Your task to perform on an android device: Clear the shopping cart on bestbuy.com. Add acer nitro to the cart on bestbuy.com, then select checkout. Image 0: 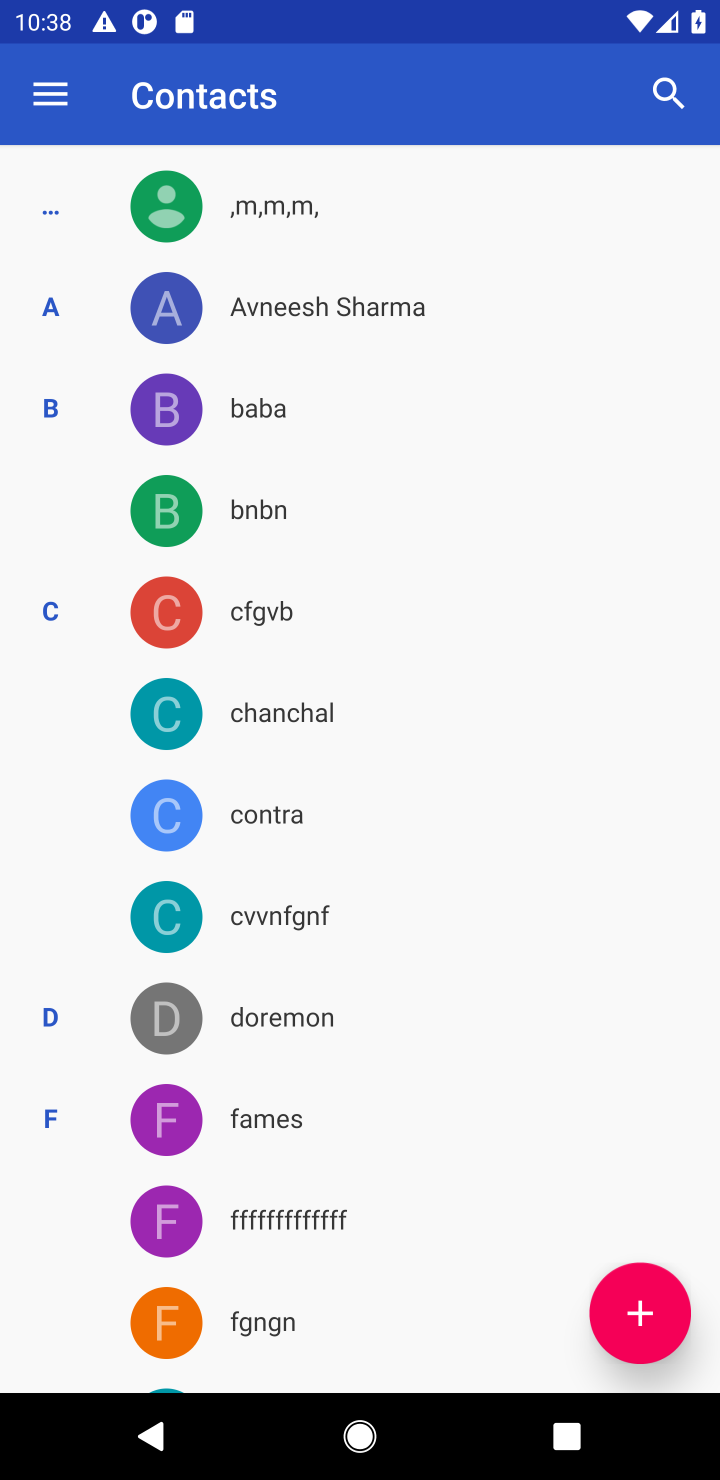
Step 0: press home button
Your task to perform on an android device: Clear the shopping cart on bestbuy.com. Add acer nitro to the cart on bestbuy.com, then select checkout. Image 1: 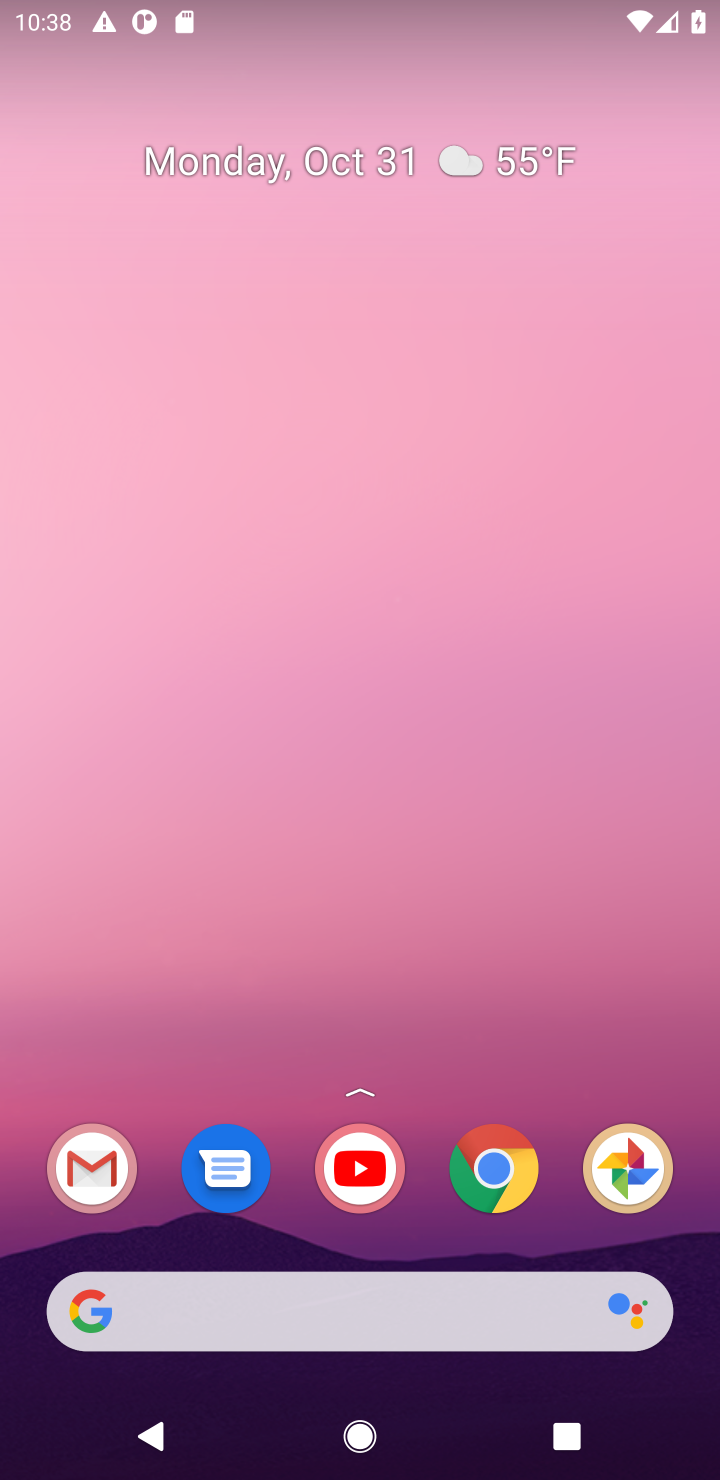
Step 1: click (474, 1160)
Your task to perform on an android device: Clear the shopping cart on bestbuy.com. Add acer nitro to the cart on bestbuy.com, then select checkout. Image 2: 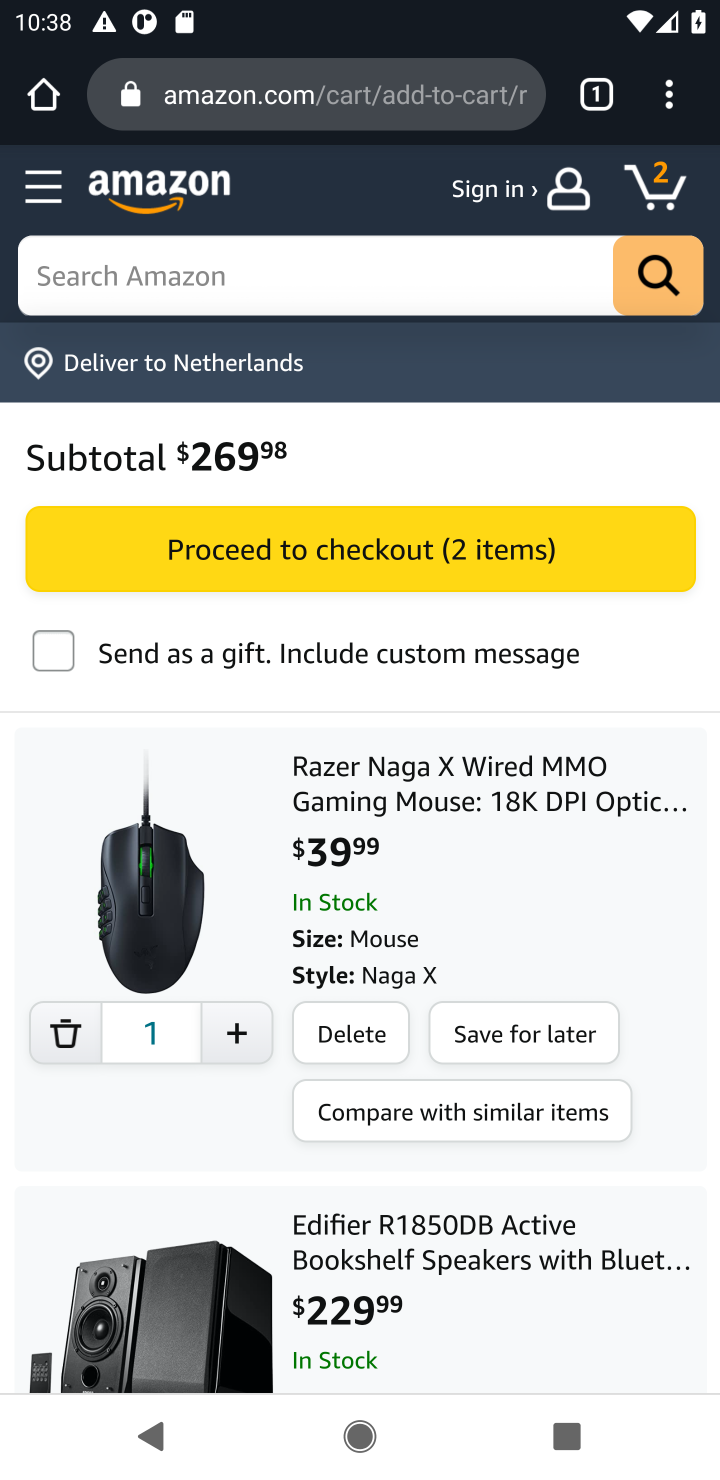
Step 2: click (357, 108)
Your task to perform on an android device: Clear the shopping cart on bestbuy.com. Add acer nitro to the cart on bestbuy.com, then select checkout. Image 3: 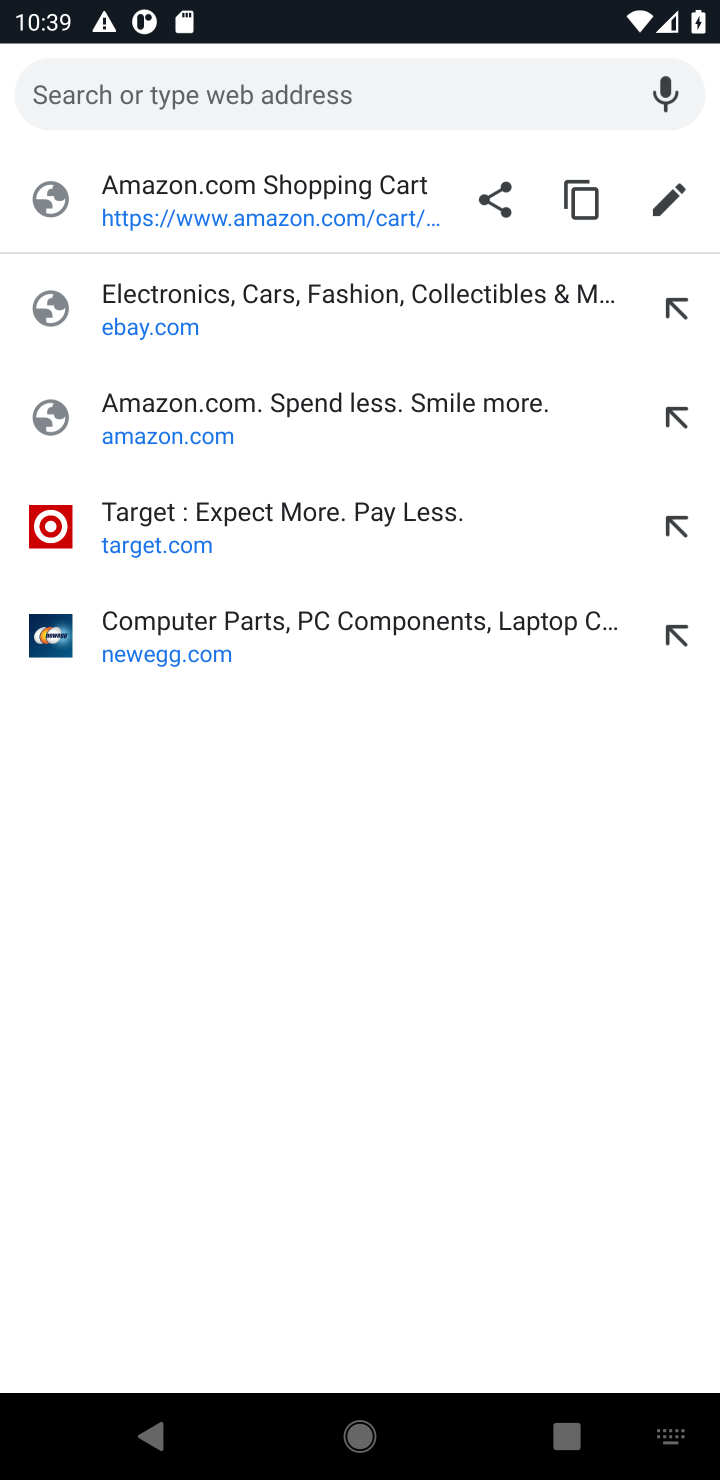
Step 3: type "bestbuy.com"
Your task to perform on an android device: Clear the shopping cart on bestbuy.com. Add acer nitro to the cart on bestbuy.com, then select checkout. Image 4: 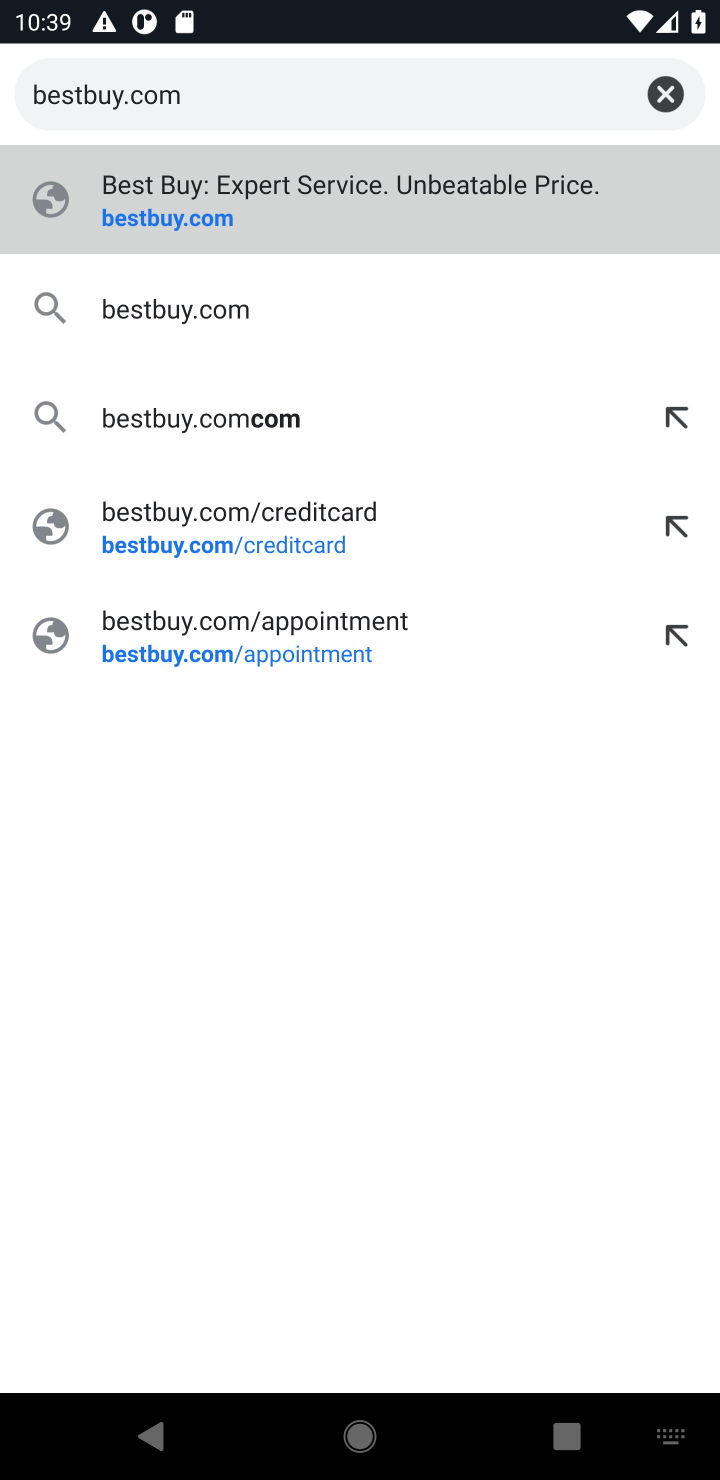
Step 4: press enter
Your task to perform on an android device: Clear the shopping cart on bestbuy.com. Add acer nitro to the cart on bestbuy.com, then select checkout. Image 5: 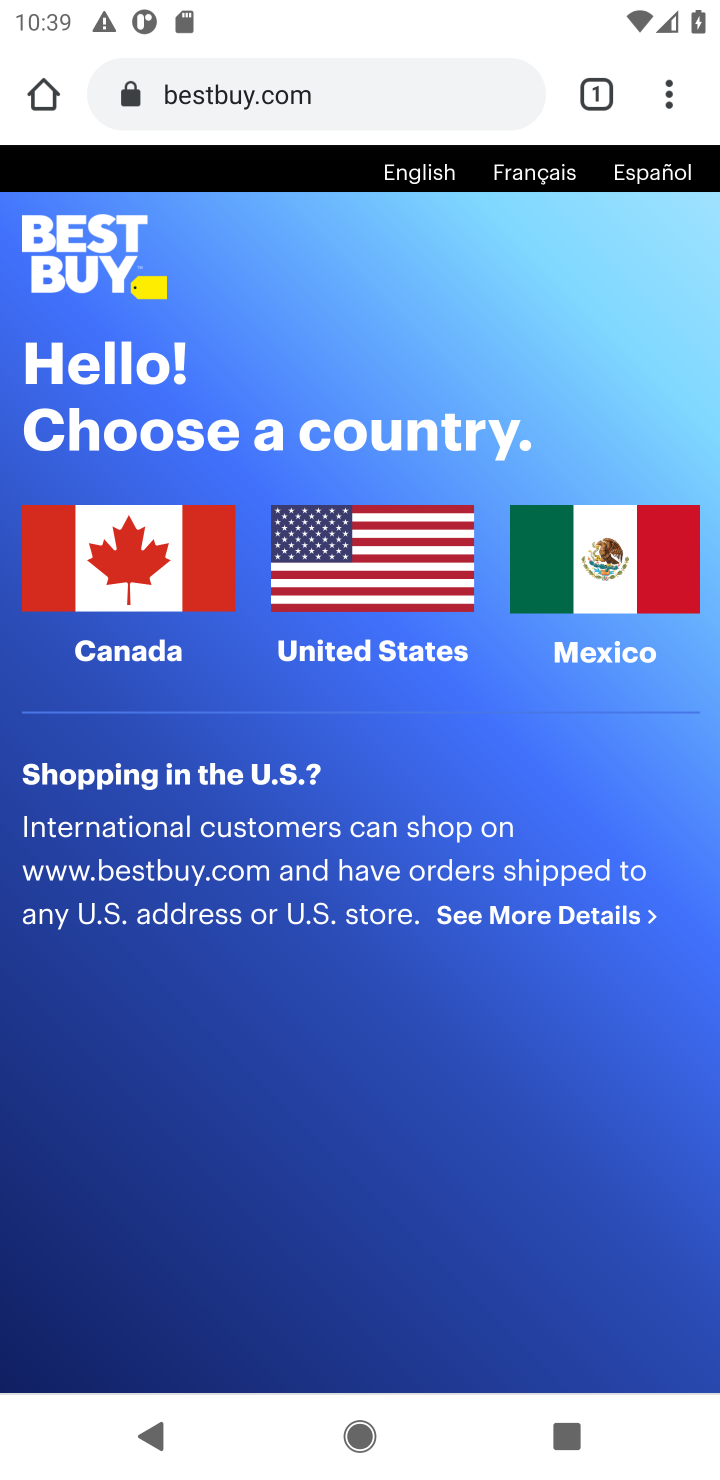
Step 5: click (365, 558)
Your task to perform on an android device: Clear the shopping cart on bestbuy.com. Add acer nitro to the cart on bestbuy.com, then select checkout. Image 6: 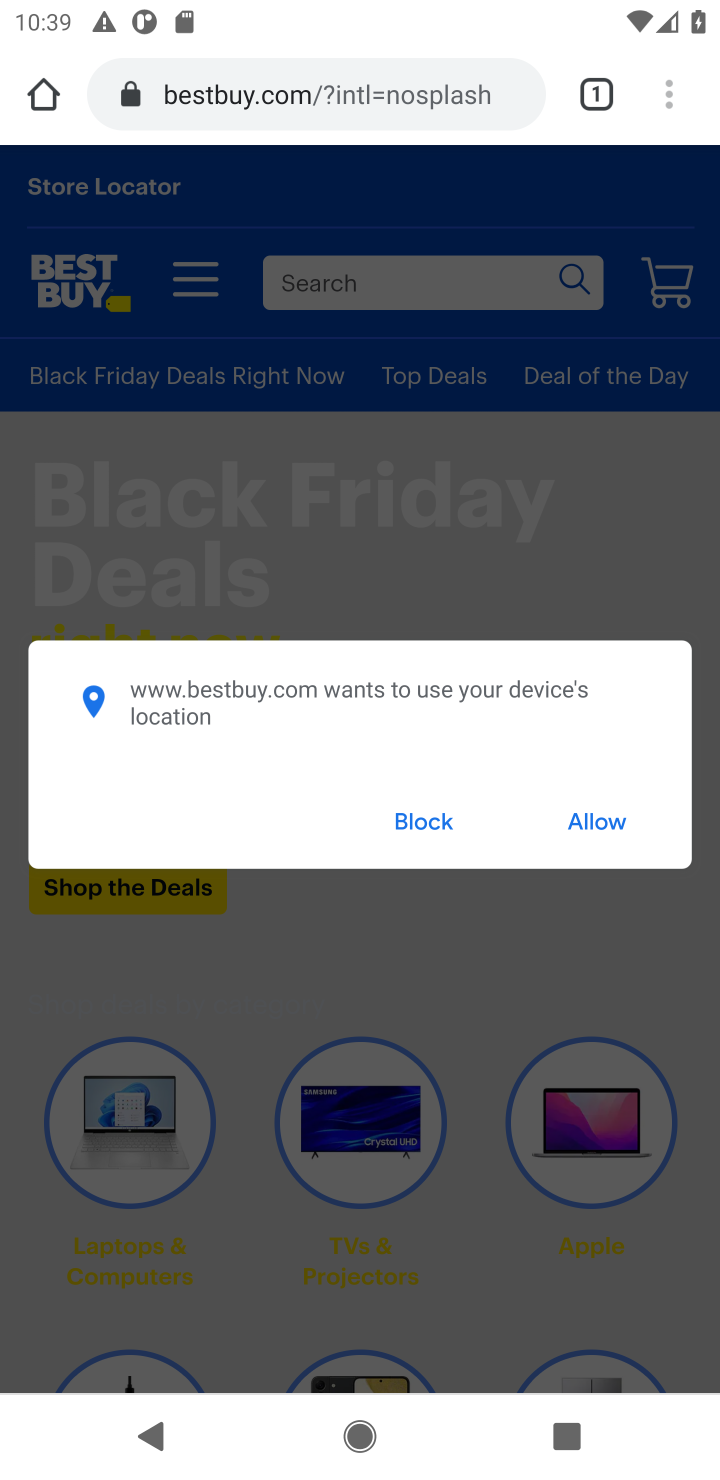
Step 6: click (598, 829)
Your task to perform on an android device: Clear the shopping cart on bestbuy.com. Add acer nitro to the cart on bestbuy.com, then select checkout. Image 7: 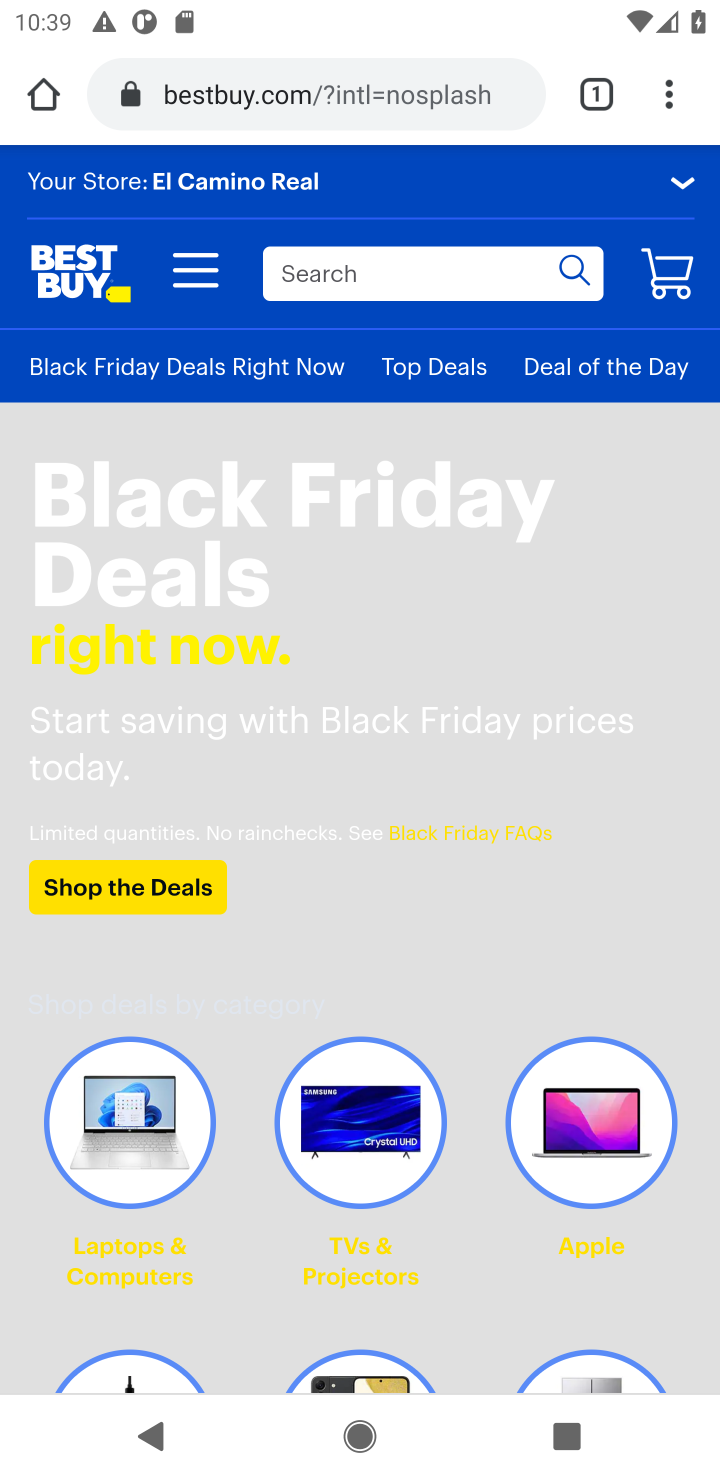
Step 7: click (669, 275)
Your task to perform on an android device: Clear the shopping cart on bestbuy.com. Add acer nitro to the cart on bestbuy.com, then select checkout. Image 8: 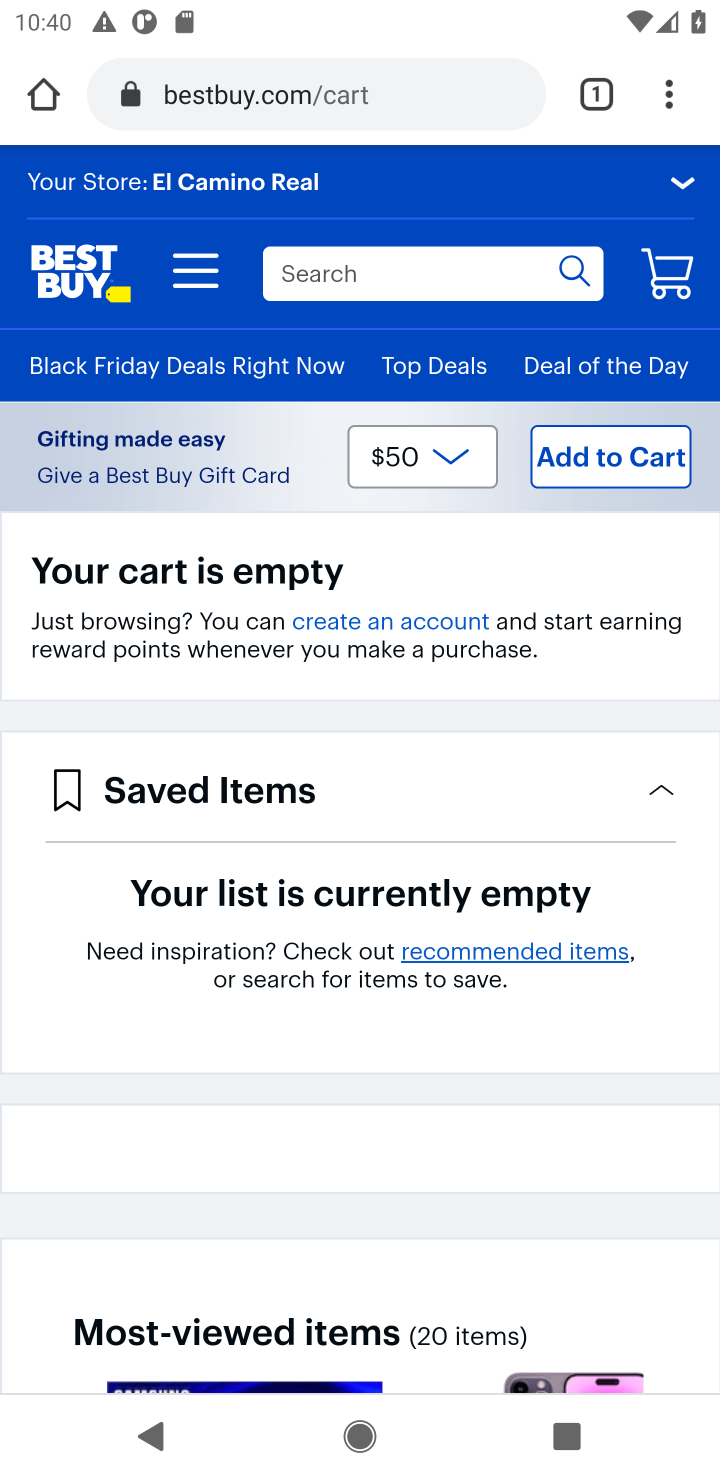
Step 8: drag from (472, 1133) to (381, 1002)
Your task to perform on an android device: Clear the shopping cart on bestbuy.com. Add acer nitro to the cart on bestbuy.com, then select checkout. Image 9: 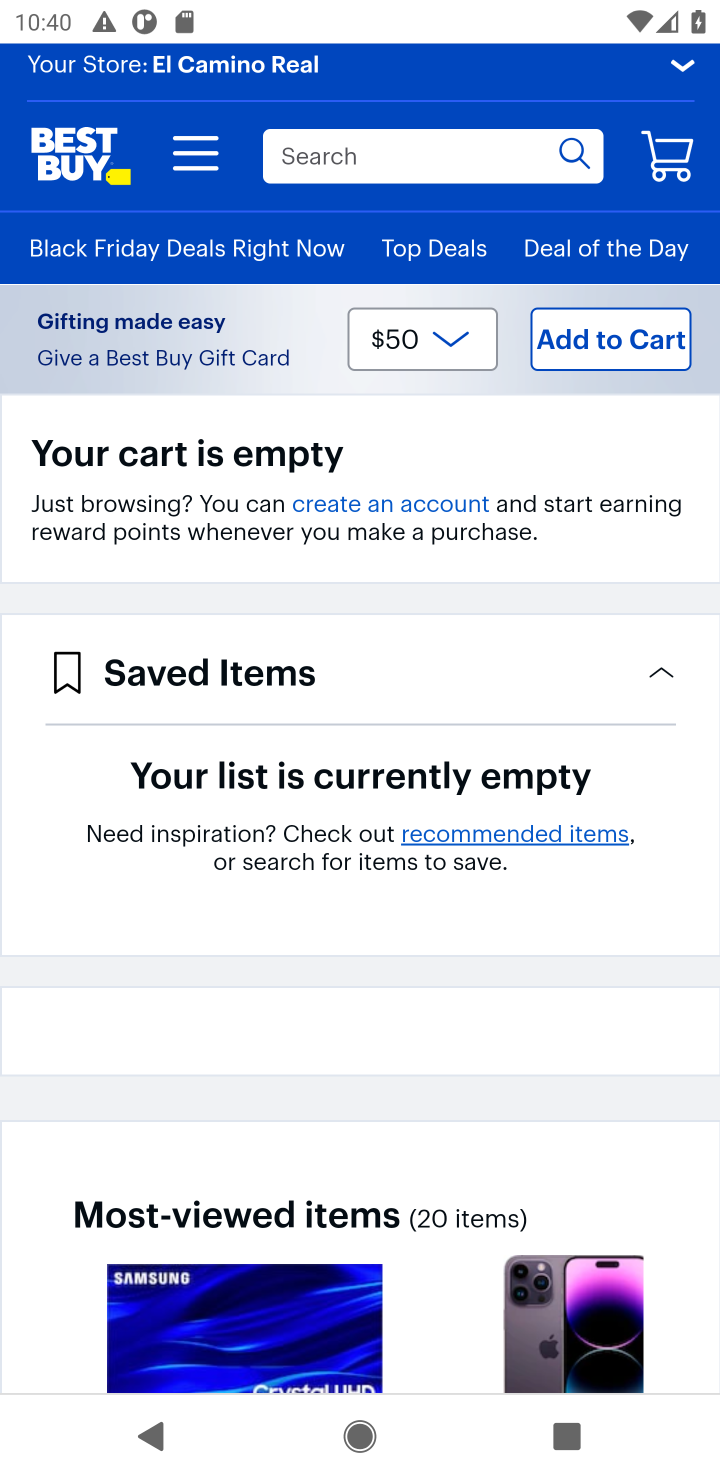
Step 9: click (496, 153)
Your task to perform on an android device: Clear the shopping cart on bestbuy.com. Add acer nitro to the cart on bestbuy.com, then select checkout. Image 10: 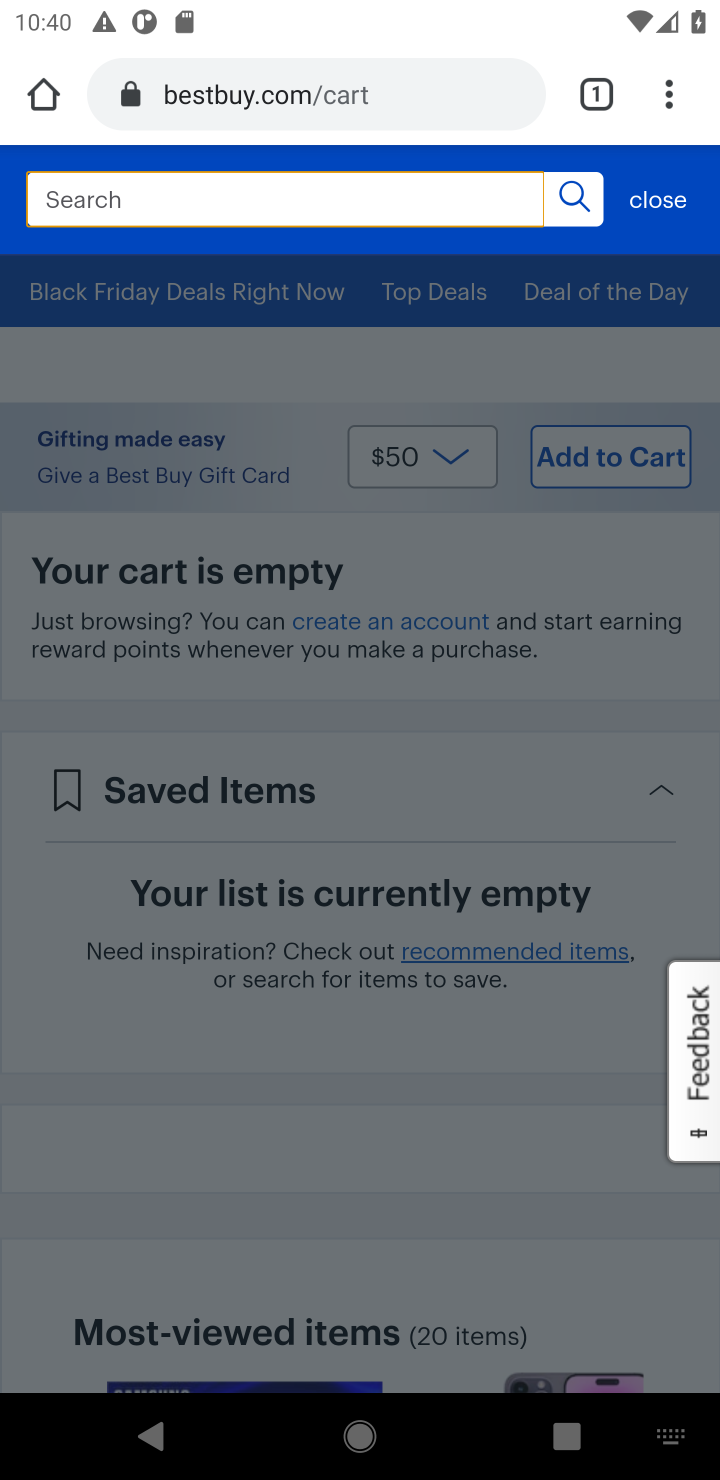
Step 10: type "acer nitro"
Your task to perform on an android device: Clear the shopping cart on bestbuy.com. Add acer nitro to the cart on bestbuy.com, then select checkout. Image 11: 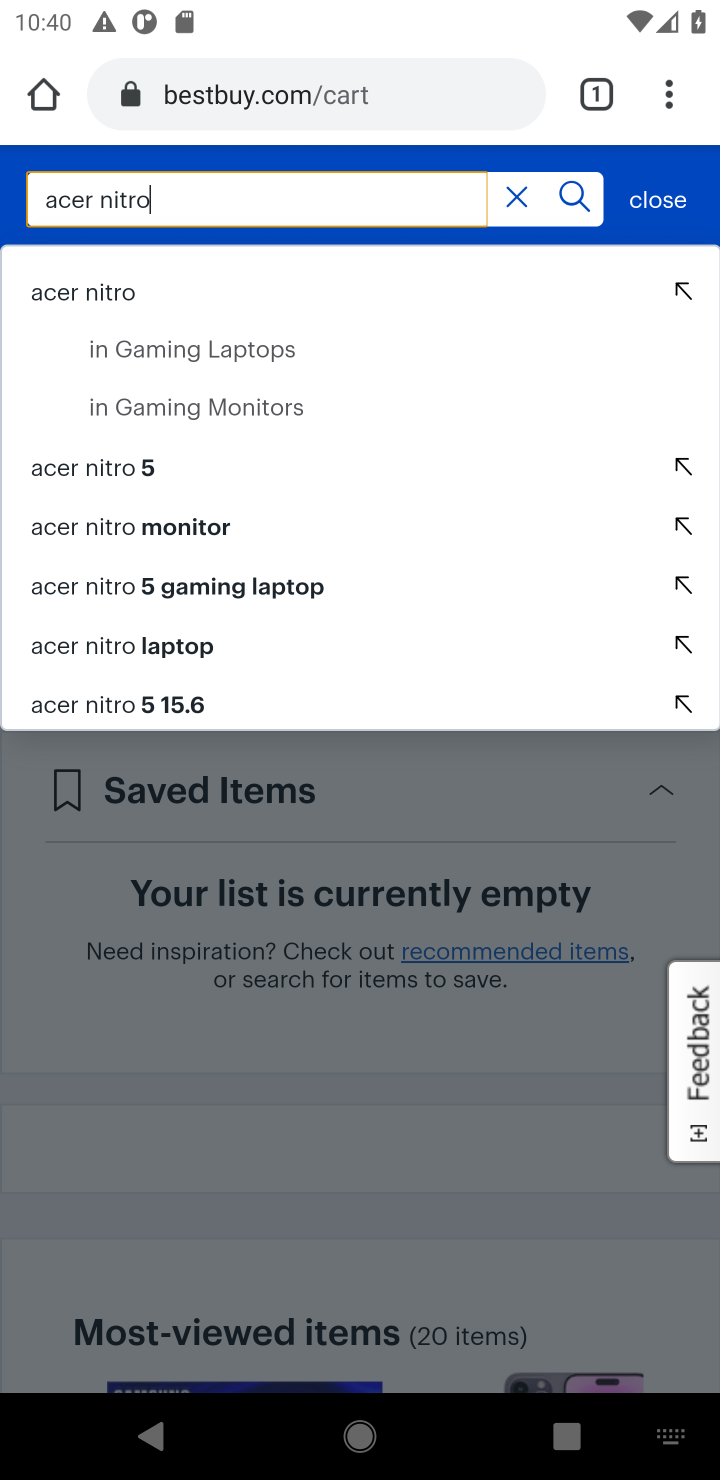
Step 11: press enter
Your task to perform on an android device: Clear the shopping cart on bestbuy.com. Add acer nitro to the cart on bestbuy.com, then select checkout. Image 12: 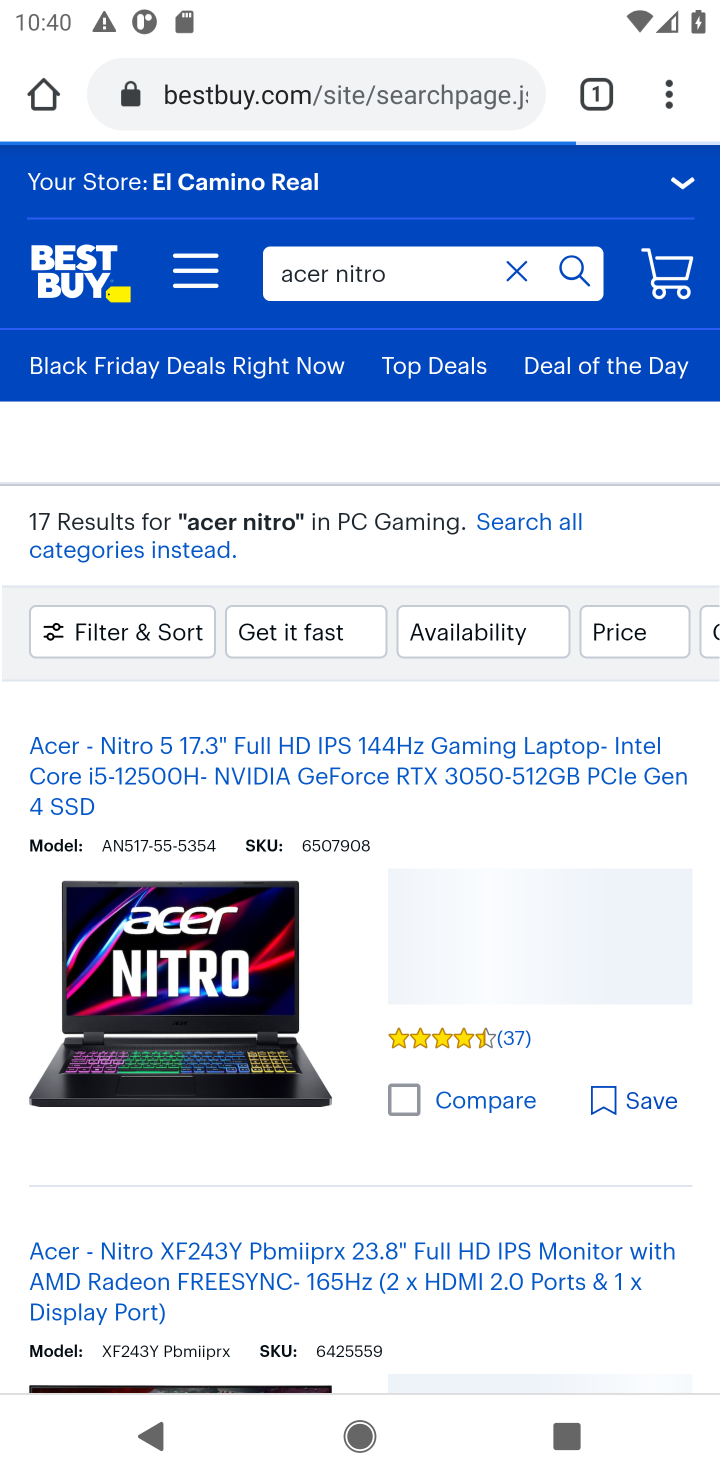
Step 12: click (274, 969)
Your task to perform on an android device: Clear the shopping cart on bestbuy.com. Add acer nitro to the cart on bestbuy.com, then select checkout. Image 13: 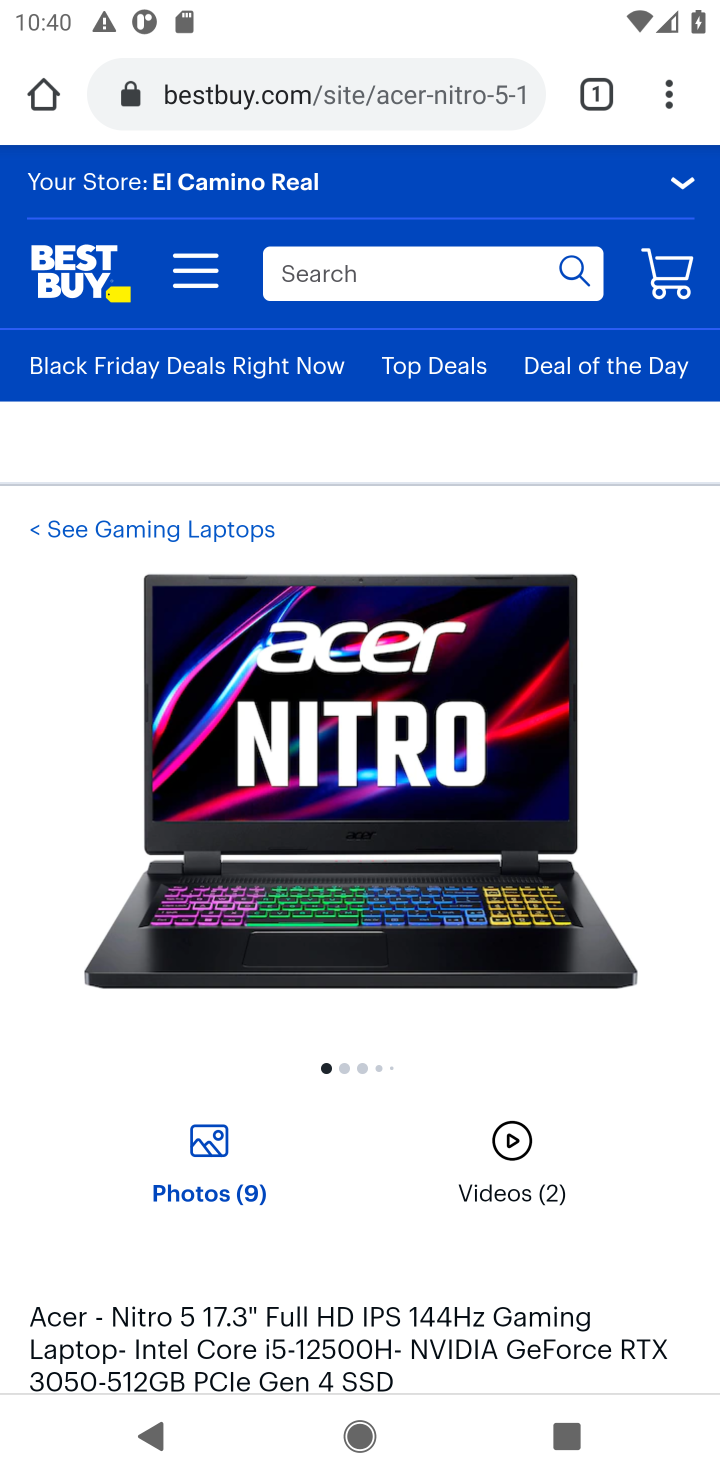
Step 13: drag from (355, 1249) to (398, 67)
Your task to perform on an android device: Clear the shopping cart on bestbuy.com. Add acer nitro to the cart on bestbuy.com, then select checkout. Image 14: 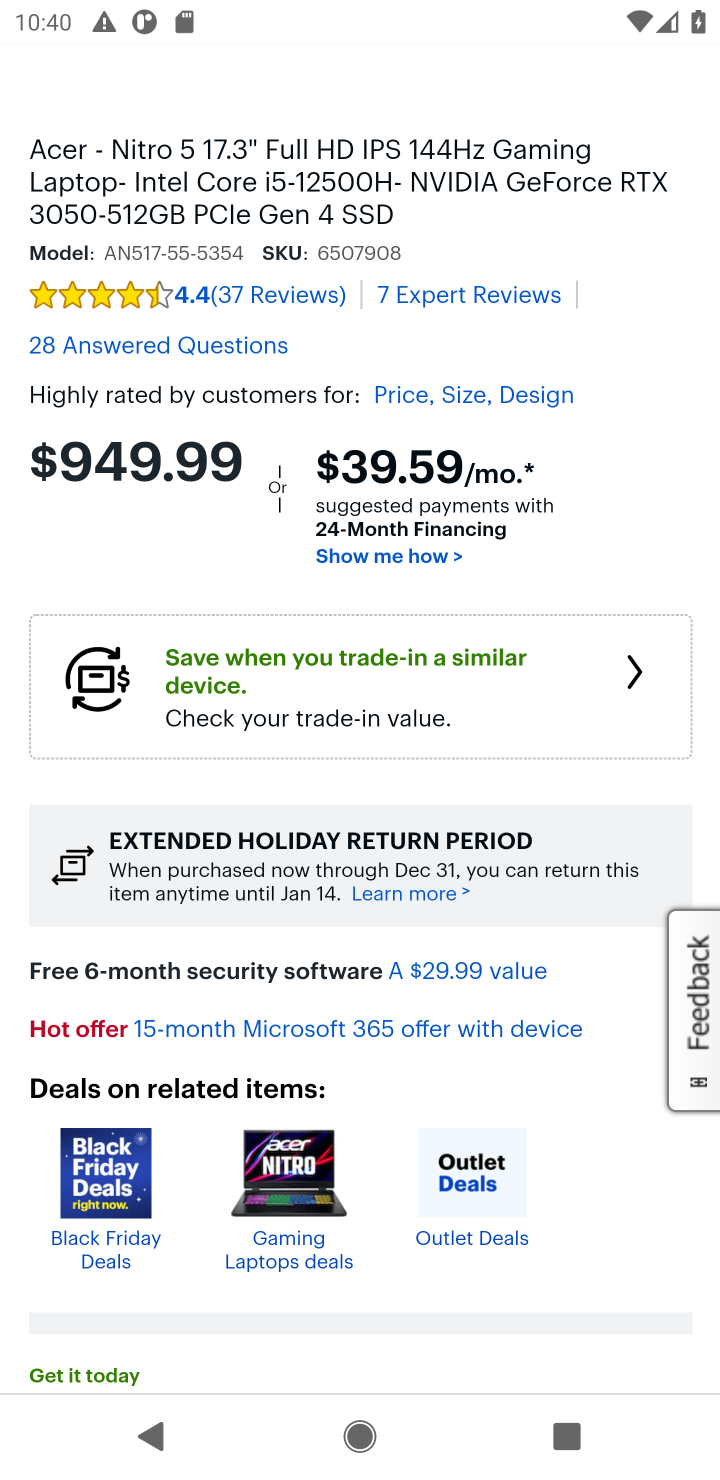
Step 14: drag from (639, 1229) to (571, 530)
Your task to perform on an android device: Clear the shopping cart on bestbuy.com. Add acer nitro to the cart on bestbuy.com, then select checkout. Image 15: 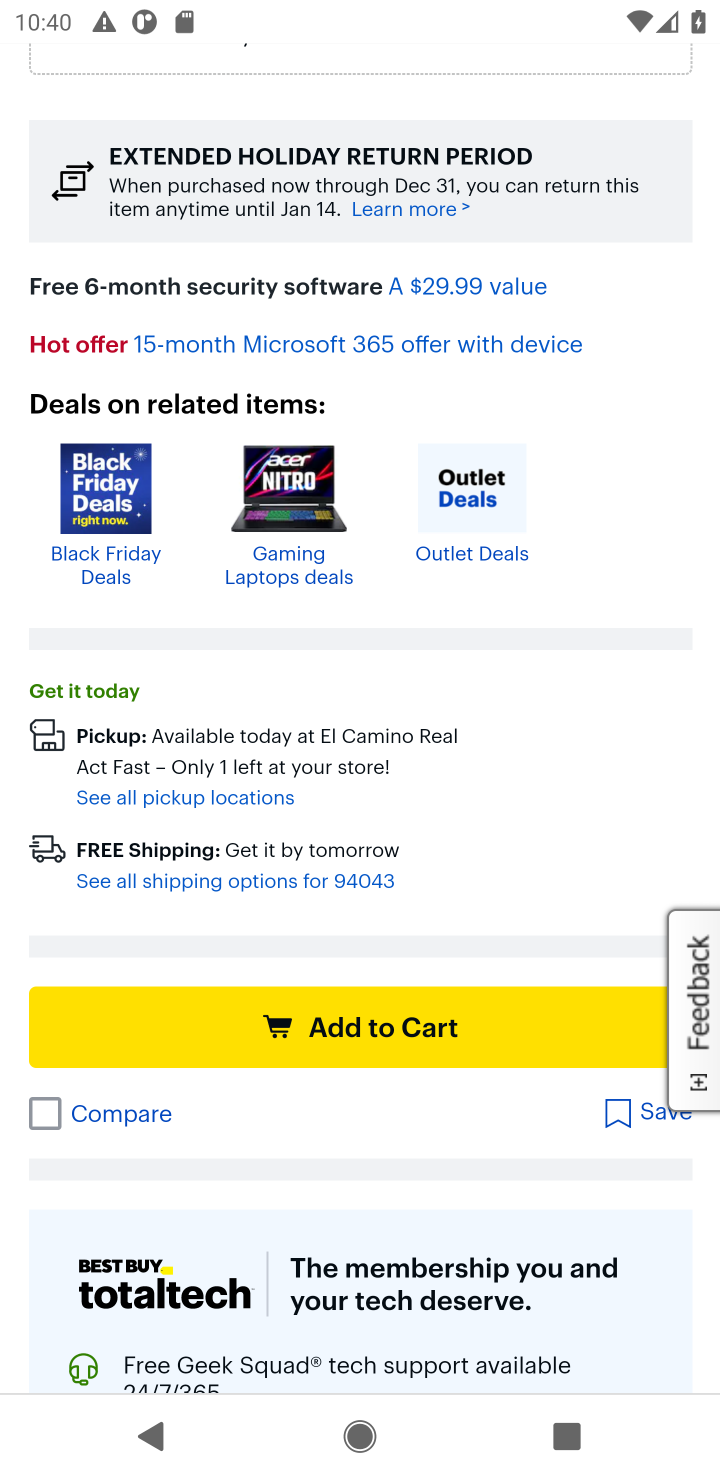
Step 15: click (309, 1016)
Your task to perform on an android device: Clear the shopping cart on bestbuy.com. Add acer nitro to the cart on bestbuy.com, then select checkout. Image 16: 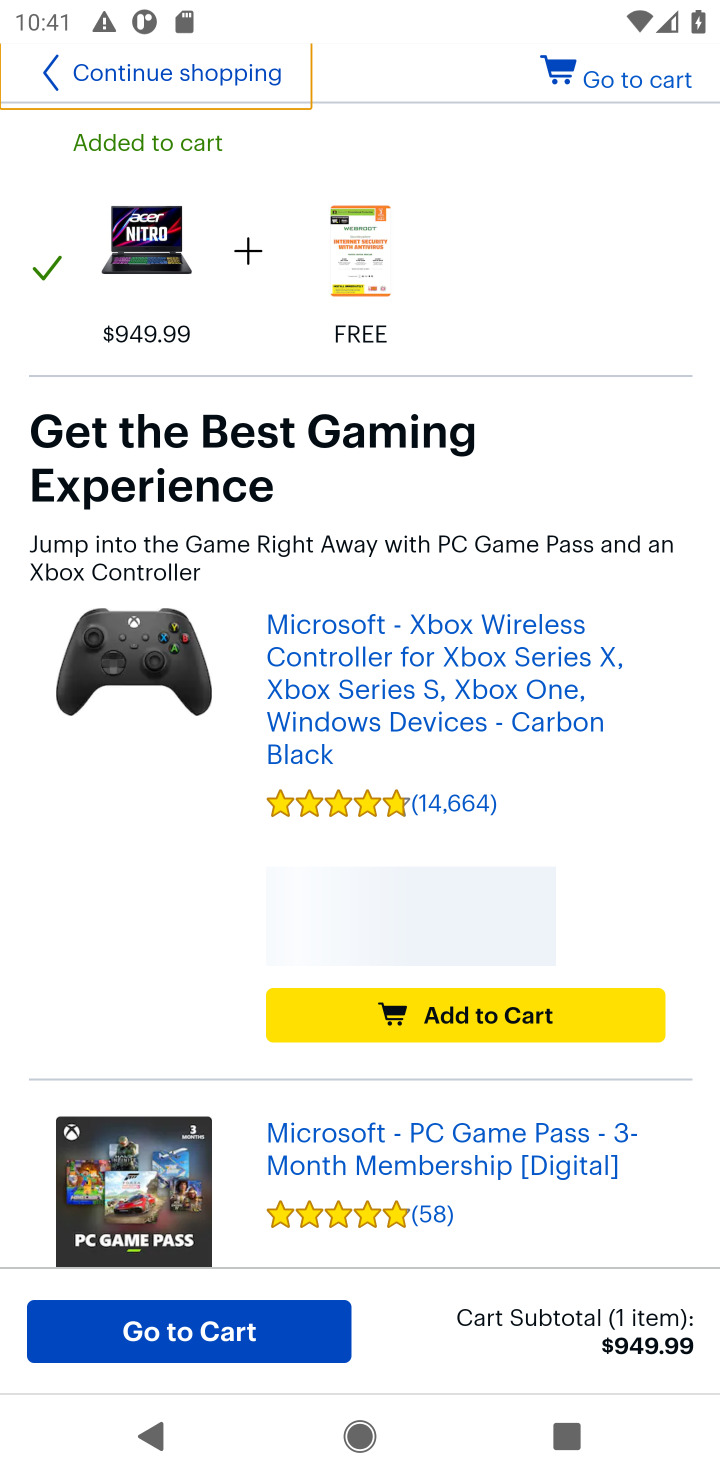
Step 16: click (223, 1341)
Your task to perform on an android device: Clear the shopping cart on bestbuy.com. Add acer nitro to the cart on bestbuy.com, then select checkout. Image 17: 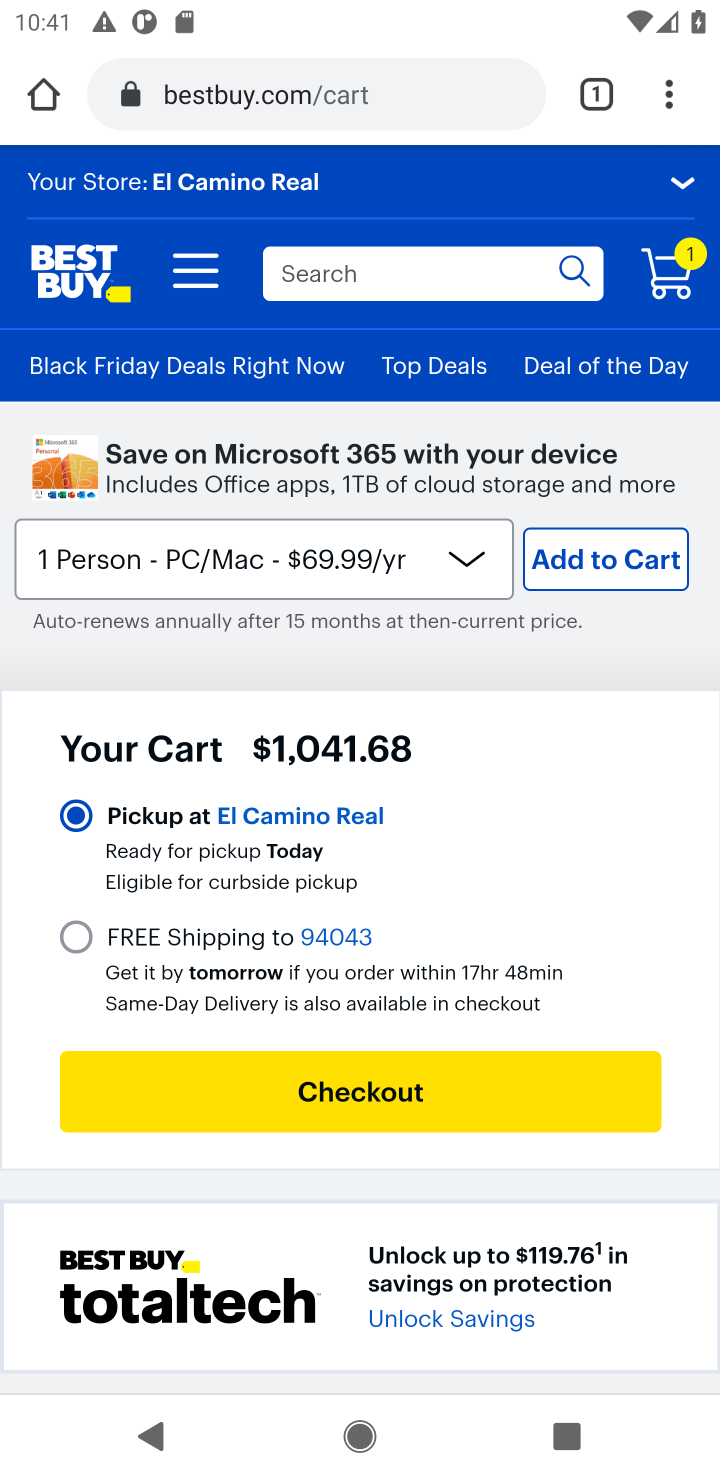
Step 17: click (278, 1113)
Your task to perform on an android device: Clear the shopping cart on bestbuy.com. Add acer nitro to the cart on bestbuy.com, then select checkout. Image 18: 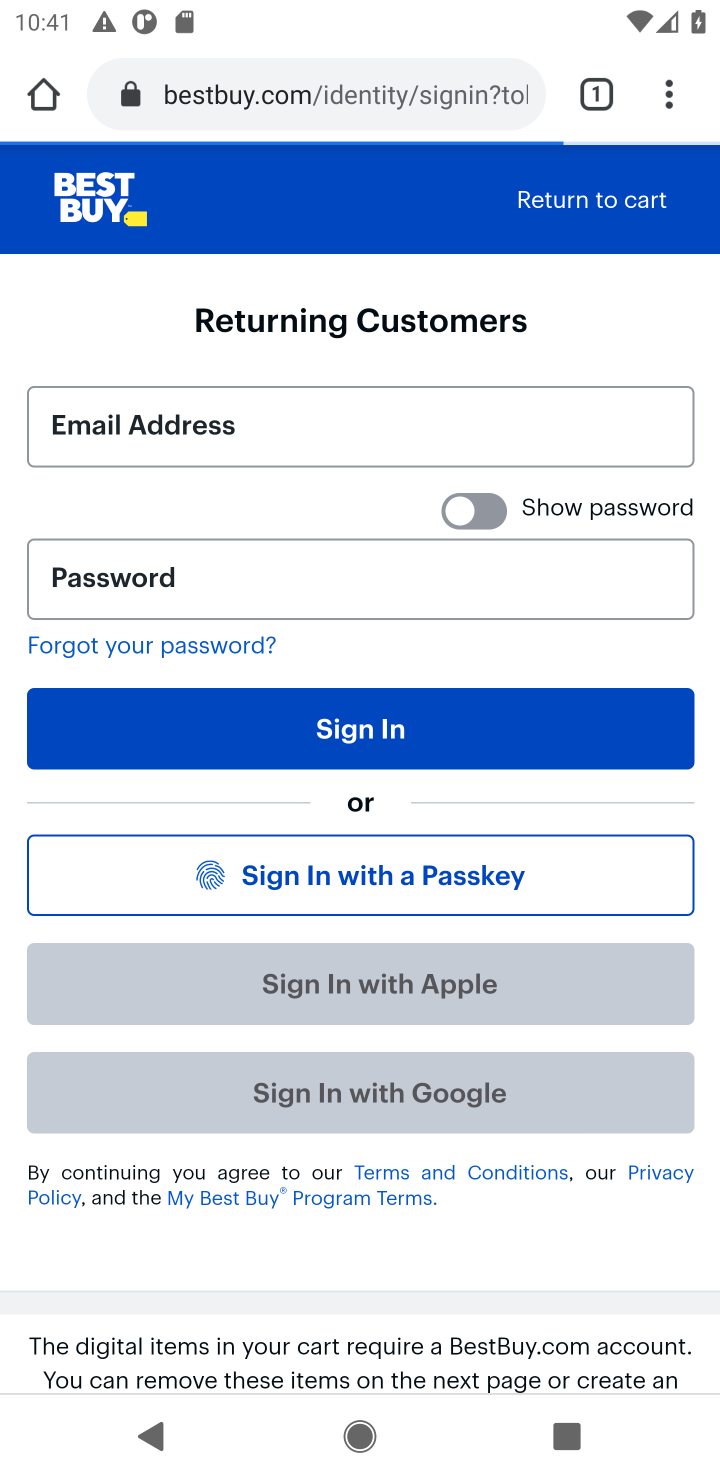
Step 18: task complete